Your task to perform on an android device: turn on the 24-hour format for clock Image 0: 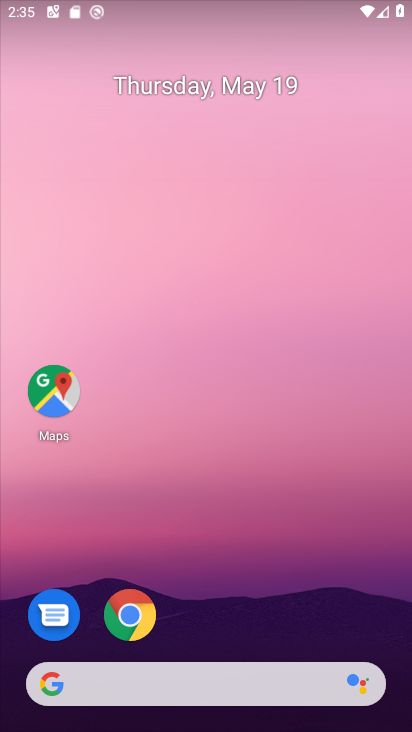
Step 0: drag from (292, 572) to (263, 64)
Your task to perform on an android device: turn on the 24-hour format for clock Image 1: 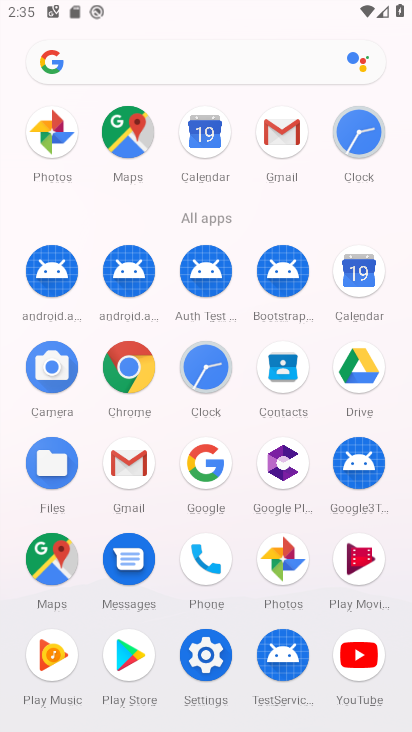
Step 1: drag from (3, 584) to (20, 326)
Your task to perform on an android device: turn on the 24-hour format for clock Image 2: 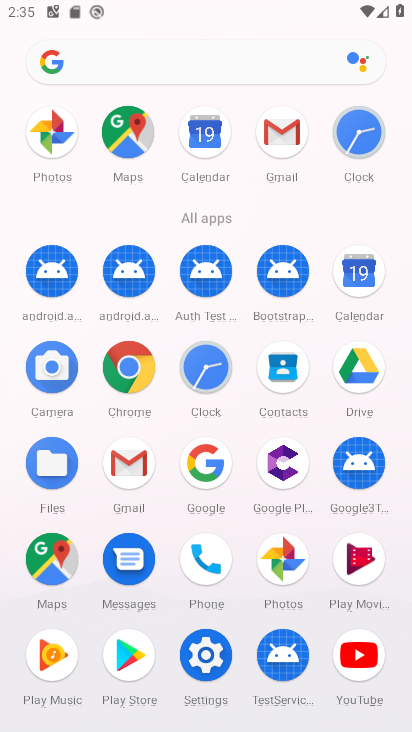
Step 2: click (207, 360)
Your task to perform on an android device: turn on the 24-hour format for clock Image 3: 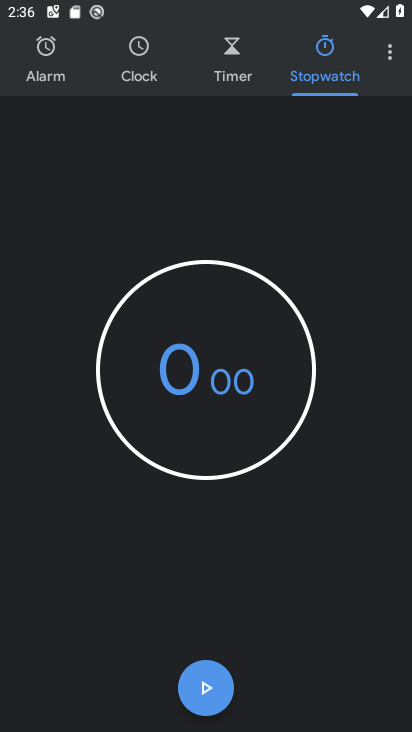
Step 3: drag from (391, 43) to (321, 112)
Your task to perform on an android device: turn on the 24-hour format for clock Image 4: 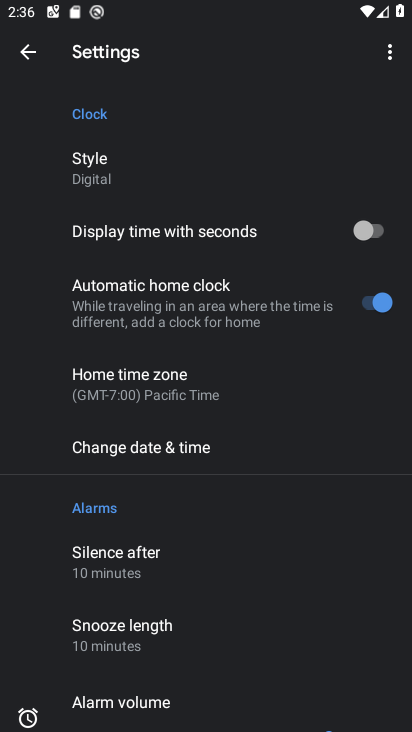
Step 4: click (155, 441)
Your task to perform on an android device: turn on the 24-hour format for clock Image 5: 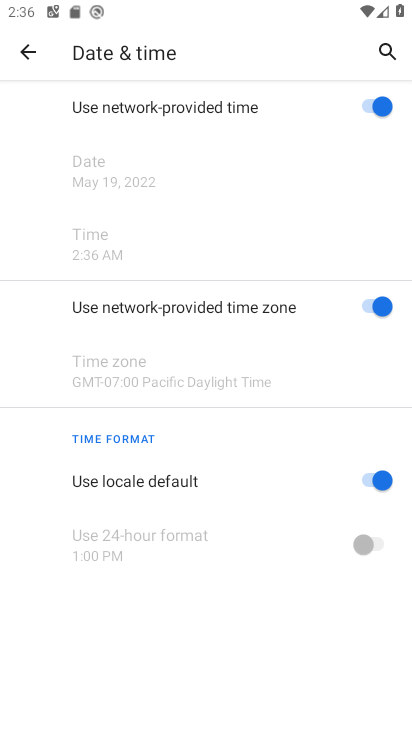
Step 5: click (371, 478)
Your task to perform on an android device: turn on the 24-hour format for clock Image 6: 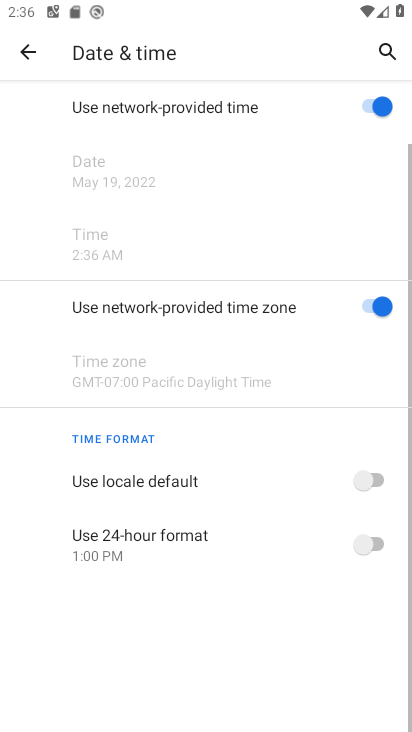
Step 6: click (355, 543)
Your task to perform on an android device: turn on the 24-hour format for clock Image 7: 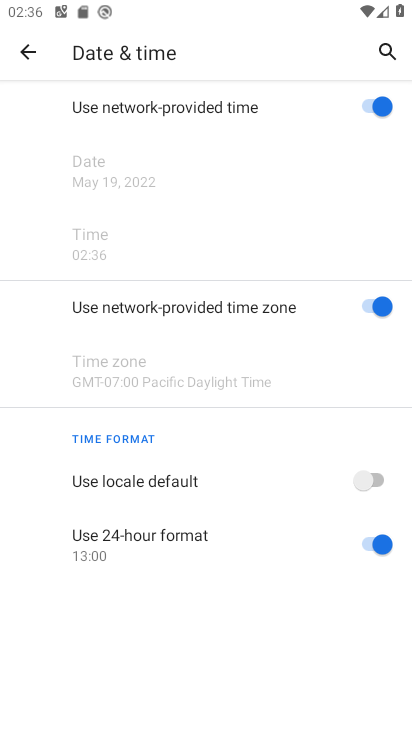
Step 7: task complete